Your task to perform on an android device: refresh tabs in the chrome app Image 0: 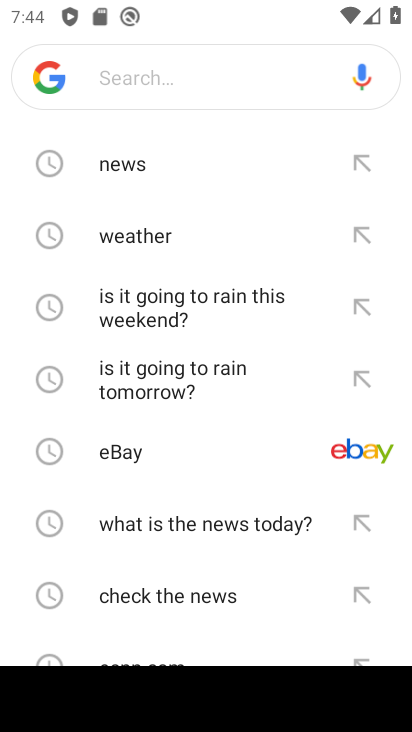
Step 0: press home button
Your task to perform on an android device: refresh tabs in the chrome app Image 1: 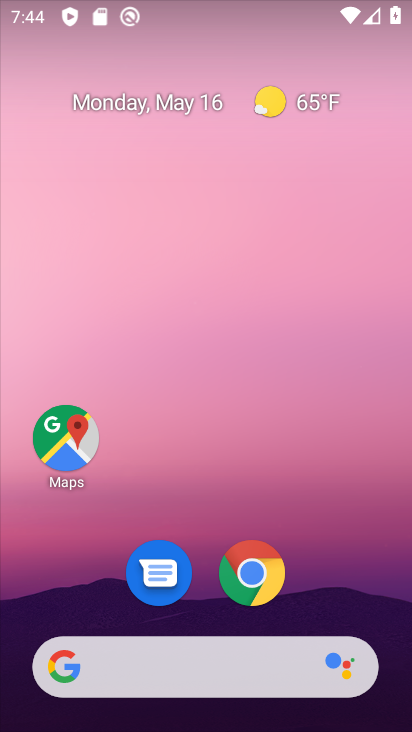
Step 1: click (241, 569)
Your task to perform on an android device: refresh tabs in the chrome app Image 2: 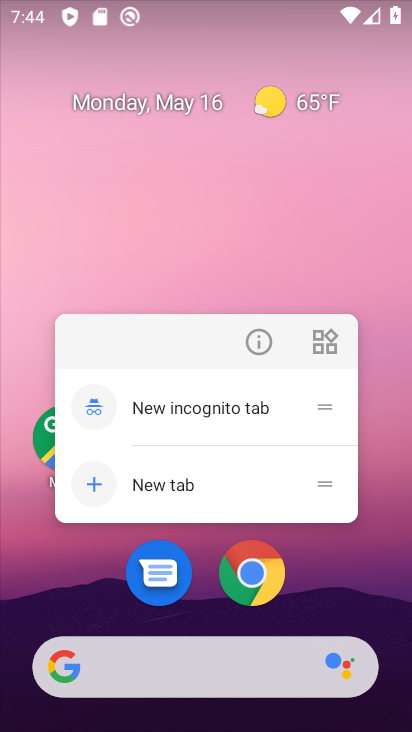
Step 2: click (241, 569)
Your task to perform on an android device: refresh tabs in the chrome app Image 3: 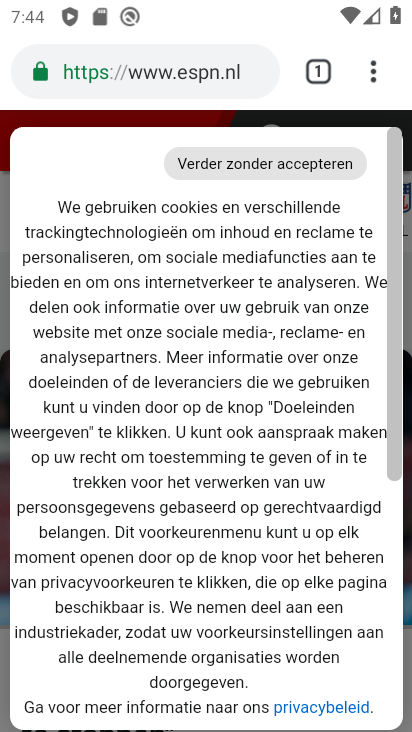
Step 3: click (367, 59)
Your task to perform on an android device: refresh tabs in the chrome app Image 4: 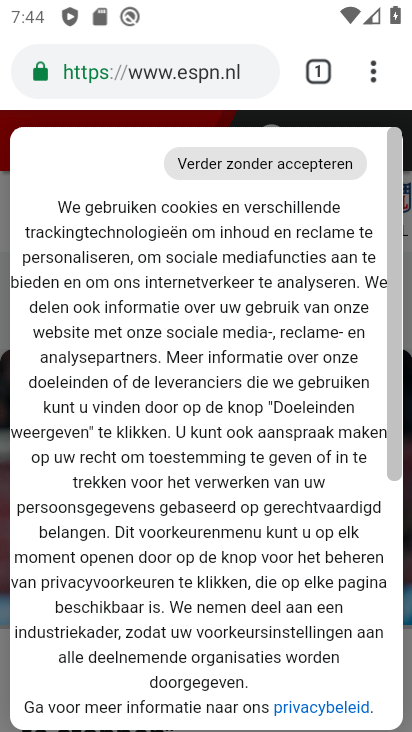
Step 4: click (381, 102)
Your task to perform on an android device: refresh tabs in the chrome app Image 5: 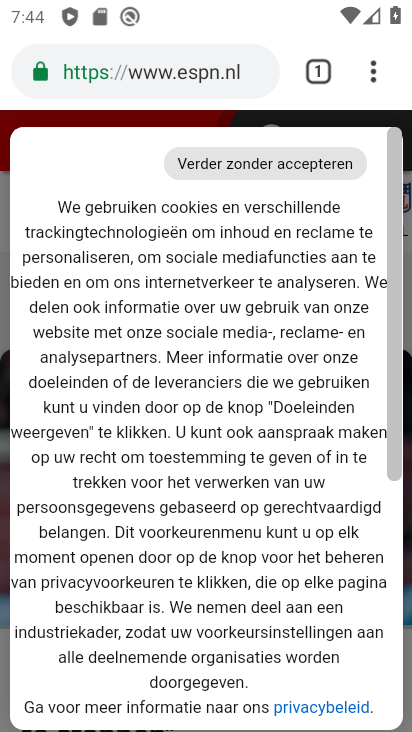
Step 5: task complete